Your task to perform on an android device: Clear the shopping cart on walmart. Search for "duracell triple a" on walmart, select the first entry, add it to the cart, then select checkout. Image 0: 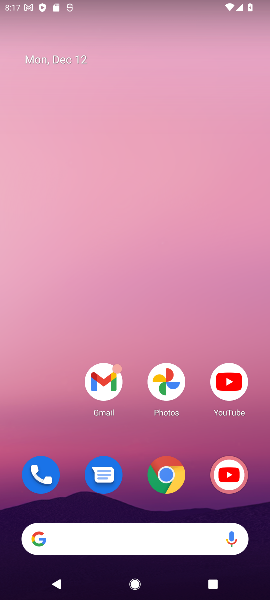
Step 0: click (168, 475)
Your task to perform on an android device: Clear the shopping cart on walmart. Search for "duracell triple a" on walmart, select the first entry, add it to the cart, then select checkout. Image 1: 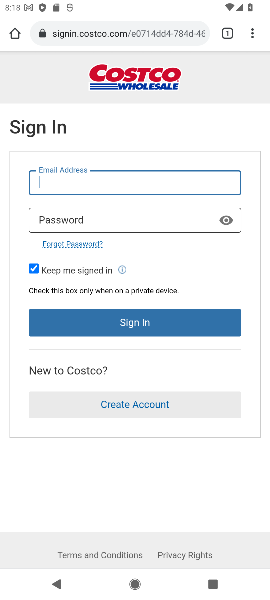
Step 1: click (119, 31)
Your task to perform on an android device: Clear the shopping cart on walmart. Search for "duracell triple a" on walmart, select the first entry, add it to the cart, then select checkout. Image 2: 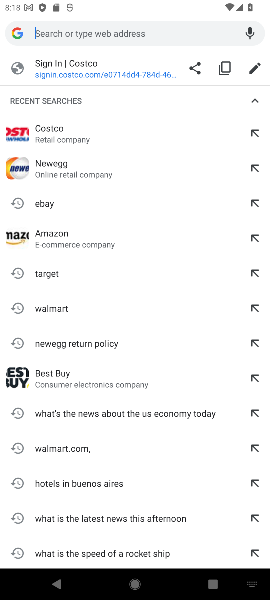
Step 2: type "walmart"
Your task to perform on an android device: Clear the shopping cart on walmart. Search for "duracell triple a" on walmart, select the first entry, add it to the cart, then select checkout. Image 3: 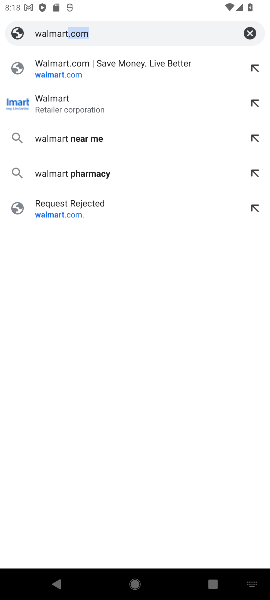
Step 3: click (54, 104)
Your task to perform on an android device: Clear the shopping cart on walmart. Search for "duracell triple a" on walmart, select the first entry, add it to the cart, then select checkout. Image 4: 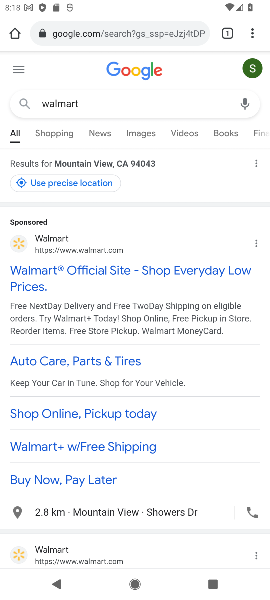
Step 4: click (63, 553)
Your task to perform on an android device: Clear the shopping cart on walmart. Search for "duracell triple a" on walmart, select the first entry, add it to the cart, then select checkout. Image 5: 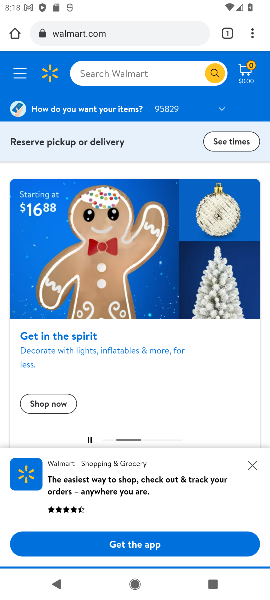
Step 5: click (244, 69)
Your task to perform on an android device: Clear the shopping cart on walmart. Search for "duracell triple a" on walmart, select the first entry, add it to the cart, then select checkout. Image 6: 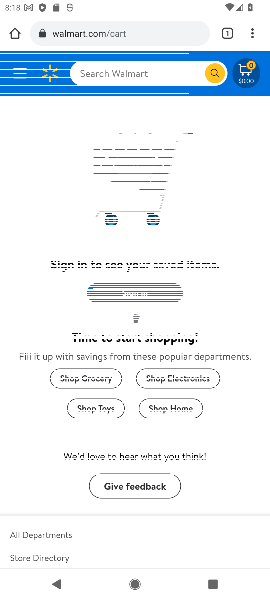
Step 6: click (136, 72)
Your task to perform on an android device: Clear the shopping cart on walmart. Search for "duracell triple a" on walmart, select the first entry, add it to the cart, then select checkout. Image 7: 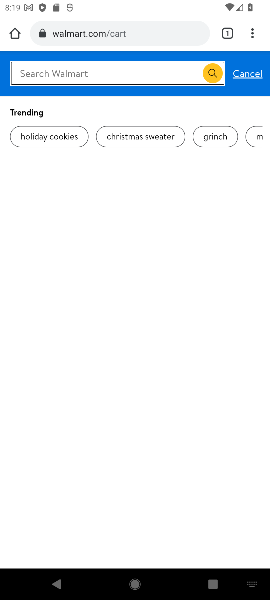
Step 7: type "duracell triple a"
Your task to perform on an android device: Clear the shopping cart on walmart. Search for "duracell triple a" on walmart, select the first entry, add it to the cart, then select checkout. Image 8: 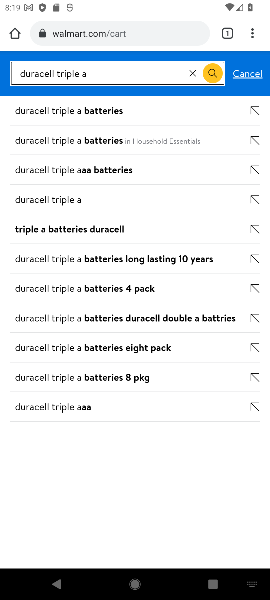
Step 8: click (211, 73)
Your task to perform on an android device: Clear the shopping cart on walmart. Search for "duracell triple a" on walmart, select the first entry, add it to the cart, then select checkout. Image 9: 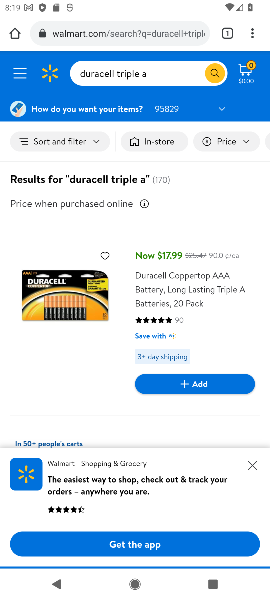
Step 9: click (171, 281)
Your task to perform on an android device: Clear the shopping cart on walmart. Search for "duracell triple a" on walmart, select the first entry, add it to the cart, then select checkout. Image 10: 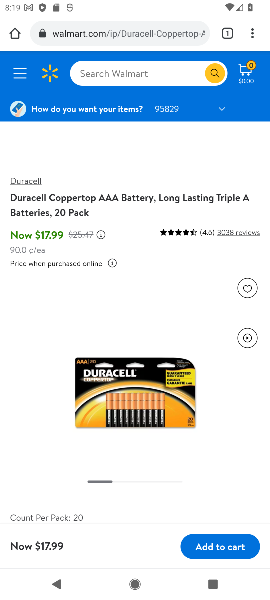
Step 10: click (225, 546)
Your task to perform on an android device: Clear the shopping cart on walmart. Search for "duracell triple a" on walmart, select the first entry, add it to the cart, then select checkout. Image 11: 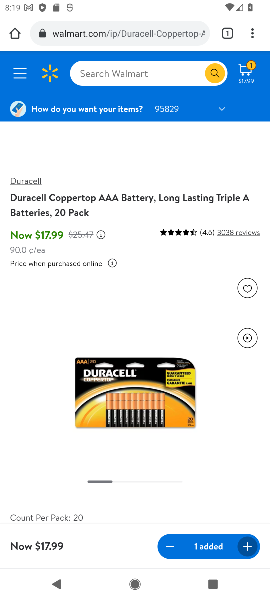
Step 11: click (243, 69)
Your task to perform on an android device: Clear the shopping cart on walmart. Search for "duracell triple a" on walmart, select the first entry, add it to the cart, then select checkout. Image 12: 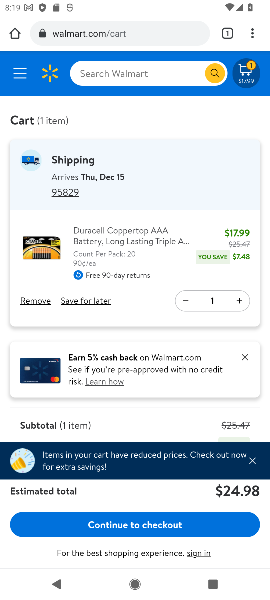
Step 12: click (96, 522)
Your task to perform on an android device: Clear the shopping cart on walmart. Search for "duracell triple a" on walmart, select the first entry, add it to the cart, then select checkout. Image 13: 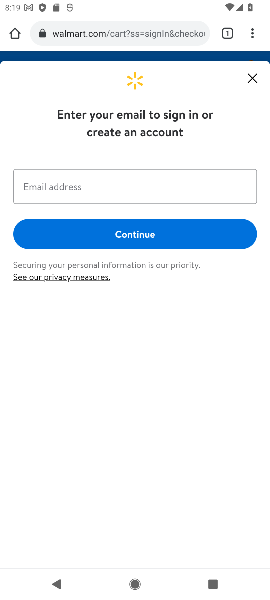
Step 13: task complete